Your task to perform on an android device: Go to internet settings Image 0: 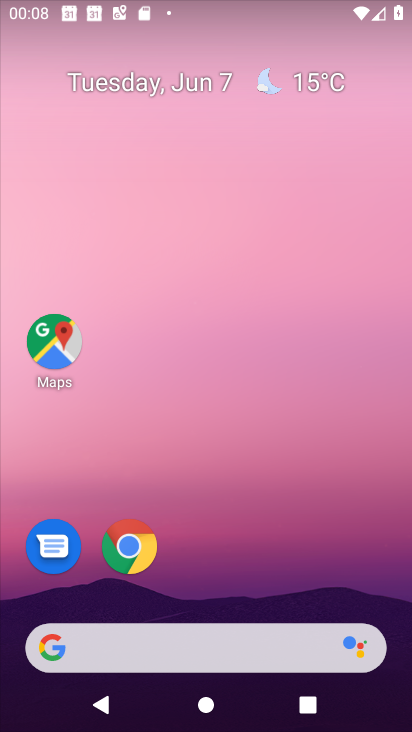
Step 0: drag from (217, 577) to (220, 0)
Your task to perform on an android device: Go to internet settings Image 1: 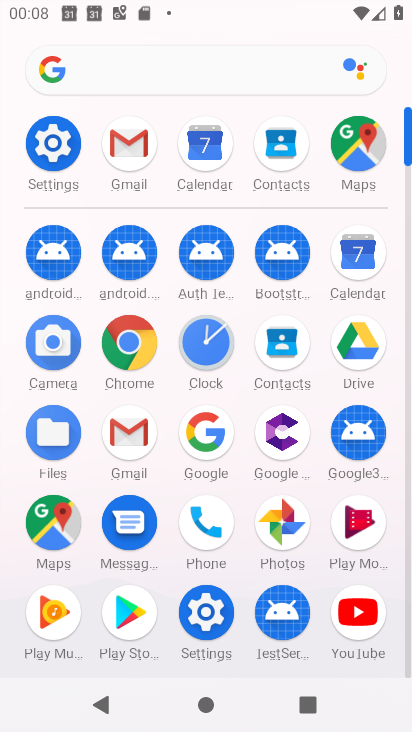
Step 1: click (216, 614)
Your task to perform on an android device: Go to internet settings Image 2: 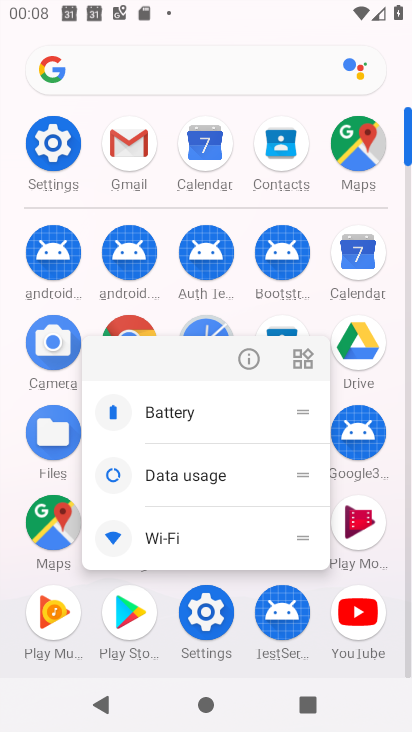
Step 2: click (214, 601)
Your task to perform on an android device: Go to internet settings Image 3: 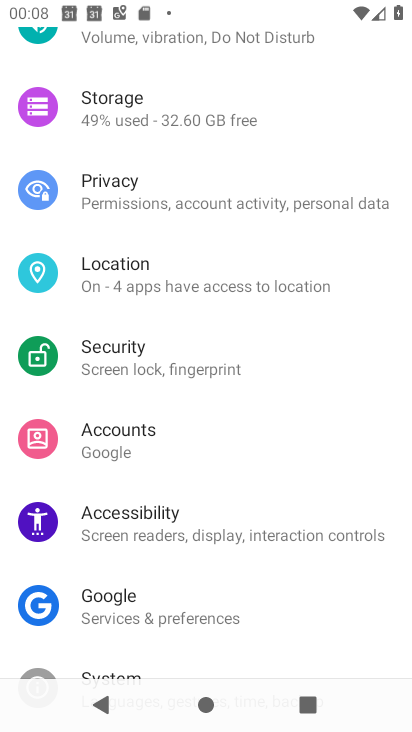
Step 3: drag from (200, 115) to (203, 442)
Your task to perform on an android device: Go to internet settings Image 4: 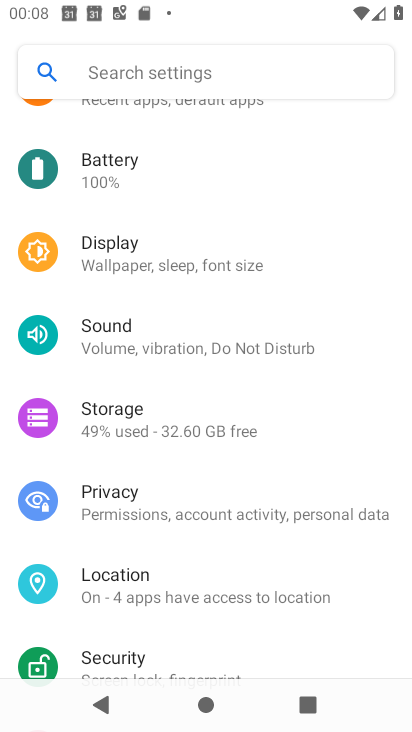
Step 4: drag from (227, 206) to (226, 700)
Your task to perform on an android device: Go to internet settings Image 5: 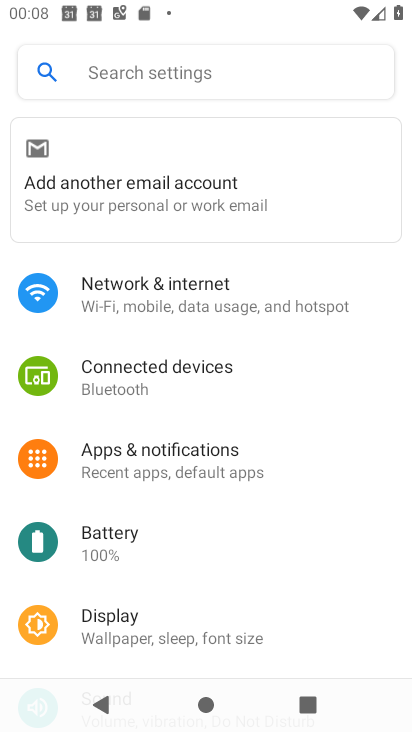
Step 5: click (189, 311)
Your task to perform on an android device: Go to internet settings Image 6: 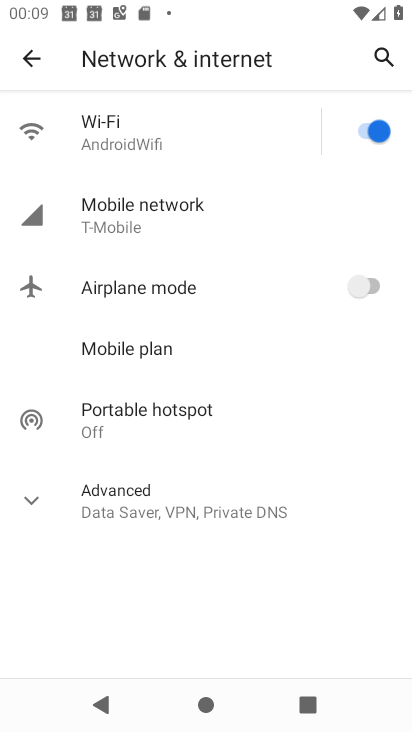
Step 6: task complete